Your task to perform on an android device: Go to CNN.com Image 0: 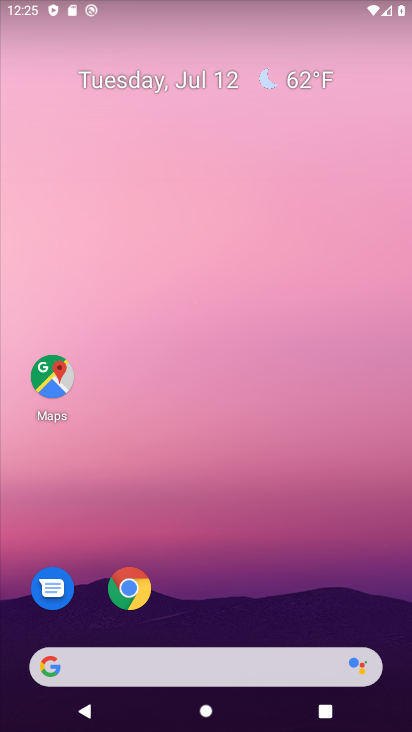
Step 0: click (162, 671)
Your task to perform on an android device: Go to CNN.com Image 1: 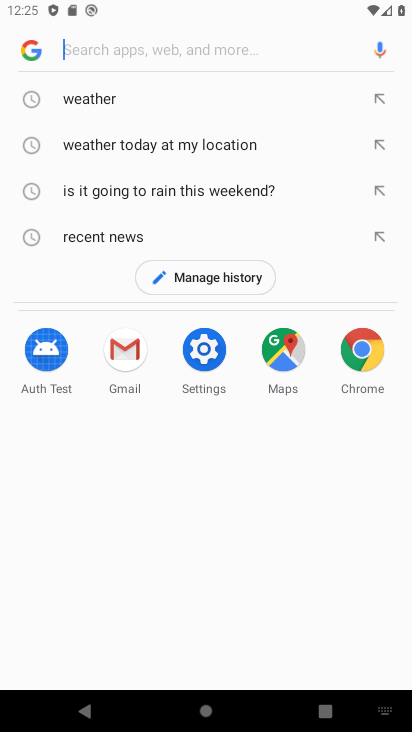
Step 1: type "cnn.com"
Your task to perform on an android device: Go to CNN.com Image 2: 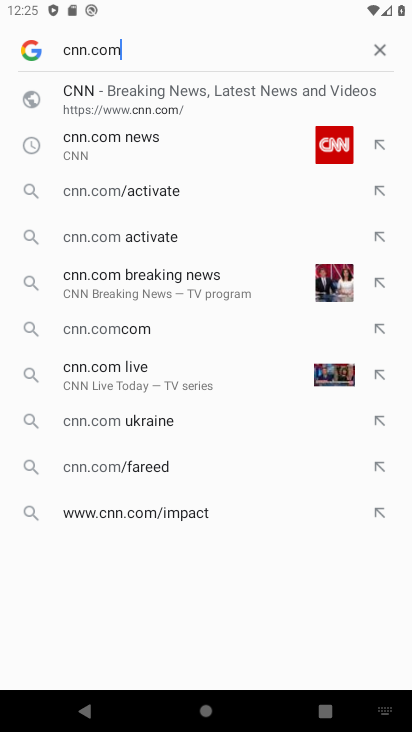
Step 2: click (159, 94)
Your task to perform on an android device: Go to CNN.com Image 3: 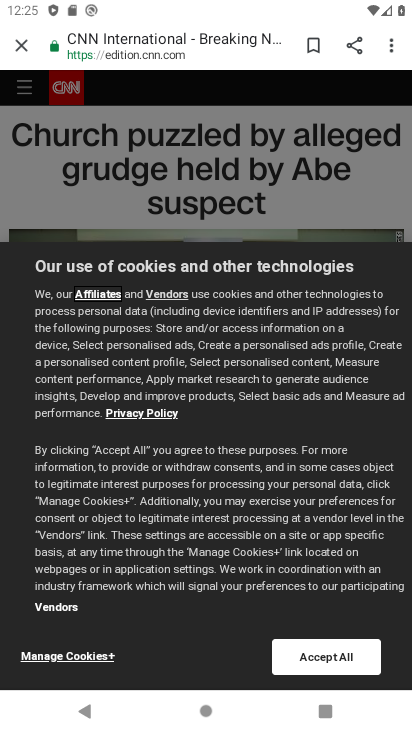
Step 3: task complete